Your task to perform on an android device: Open Chrome and go to the settings page Image 0: 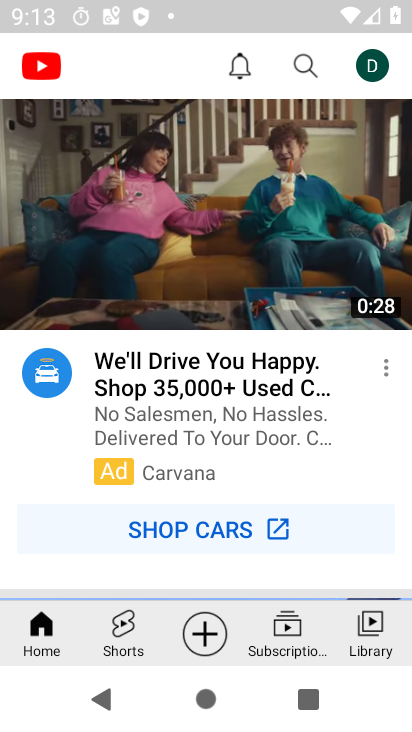
Step 0: press home button
Your task to perform on an android device: Open Chrome and go to the settings page Image 1: 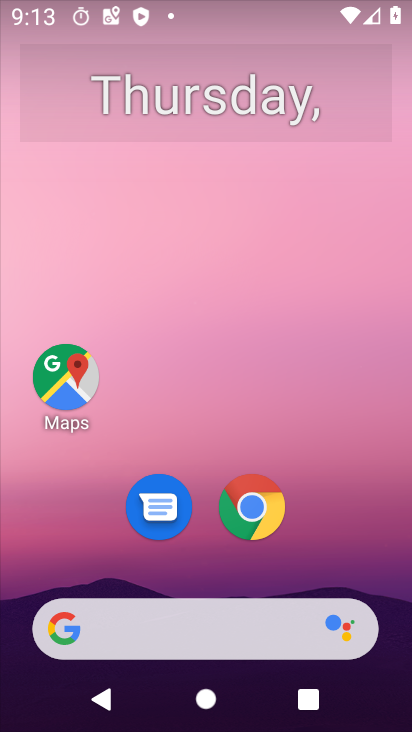
Step 1: click (292, 507)
Your task to perform on an android device: Open Chrome and go to the settings page Image 2: 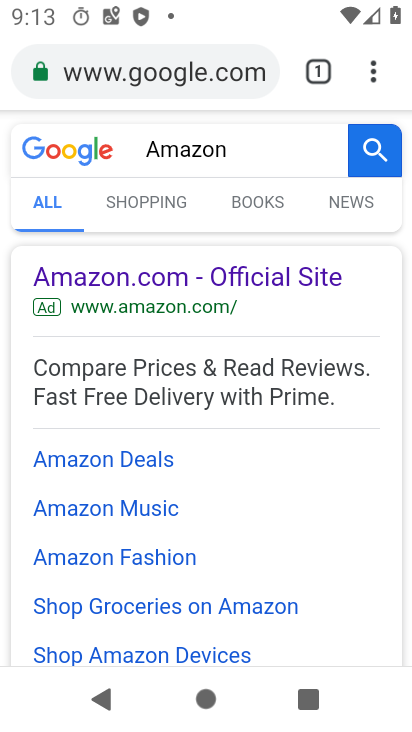
Step 2: click (377, 72)
Your task to perform on an android device: Open Chrome and go to the settings page Image 3: 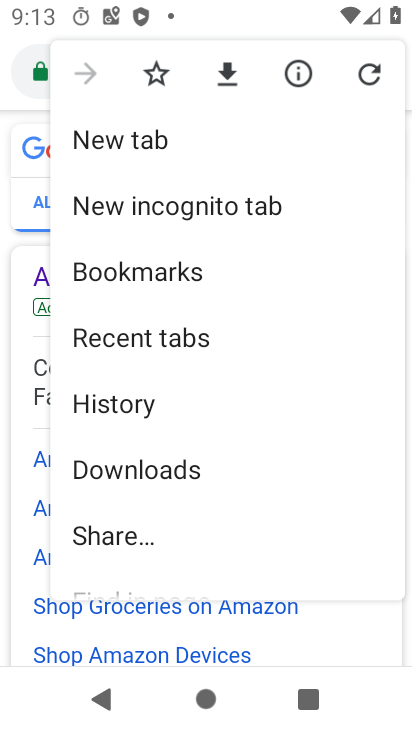
Step 3: drag from (161, 467) to (218, 127)
Your task to perform on an android device: Open Chrome and go to the settings page Image 4: 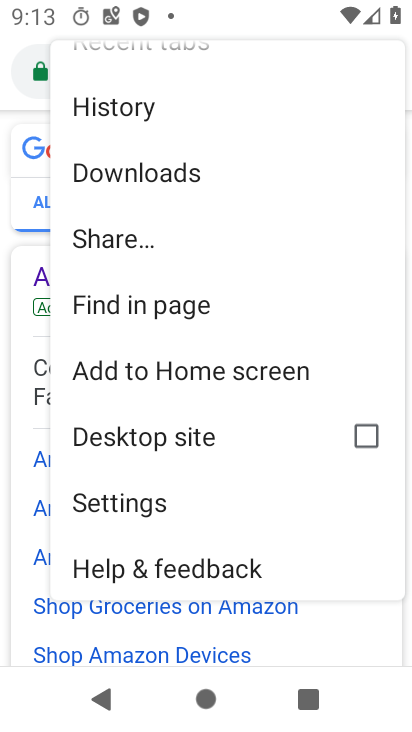
Step 4: click (155, 504)
Your task to perform on an android device: Open Chrome and go to the settings page Image 5: 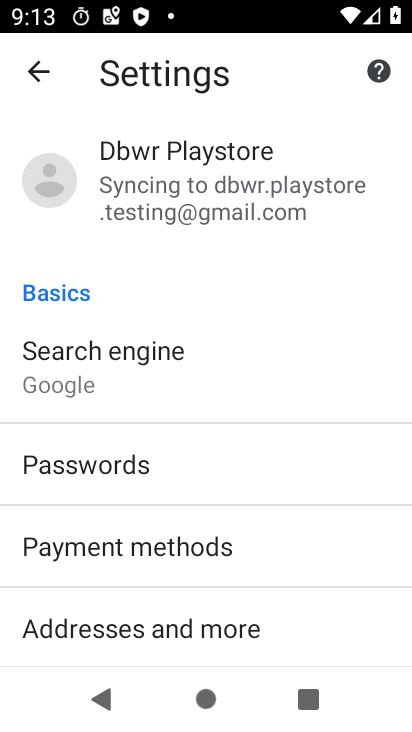
Step 5: task complete